Your task to perform on an android device: turn off translation in the chrome app Image 0: 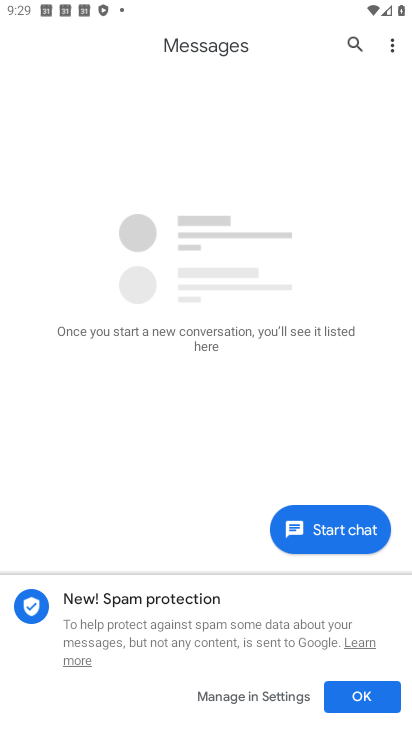
Step 0: click (133, 635)
Your task to perform on an android device: turn off translation in the chrome app Image 1: 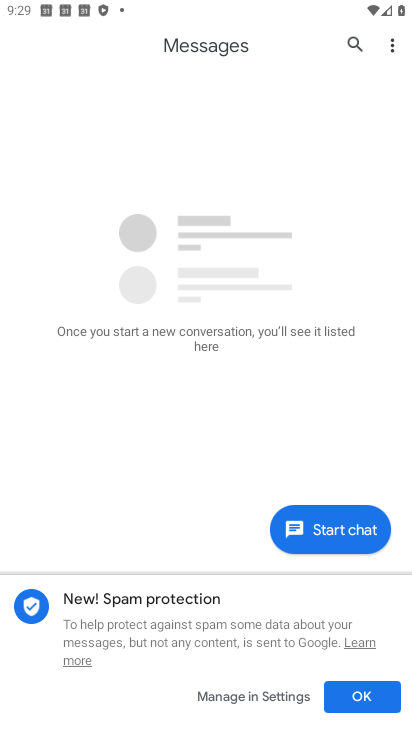
Step 1: press home button
Your task to perform on an android device: turn off translation in the chrome app Image 2: 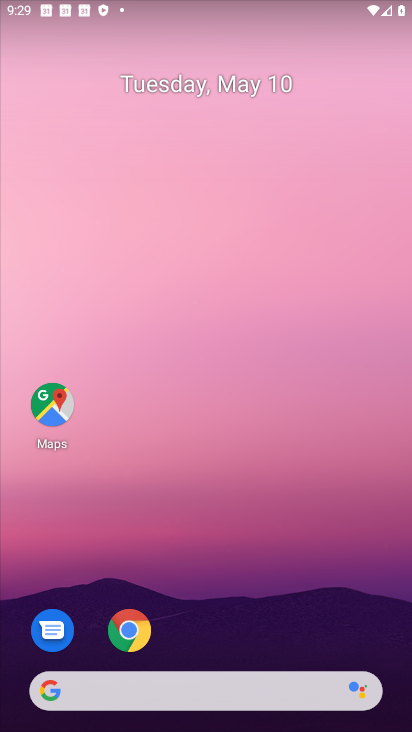
Step 2: click (135, 627)
Your task to perform on an android device: turn off translation in the chrome app Image 3: 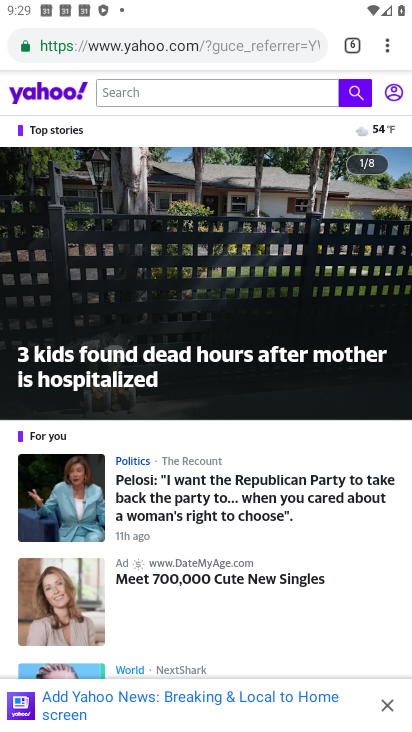
Step 3: click (392, 38)
Your task to perform on an android device: turn off translation in the chrome app Image 4: 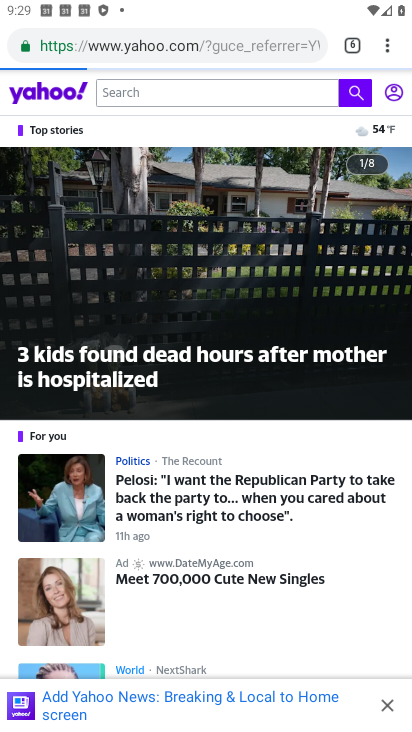
Step 4: click (383, 46)
Your task to perform on an android device: turn off translation in the chrome app Image 5: 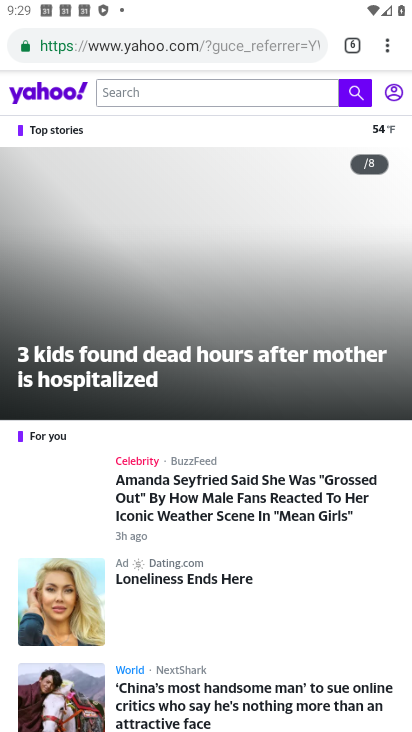
Step 5: click (383, 46)
Your task to perform on an android device: turn off translation in the chrome app Image 6: 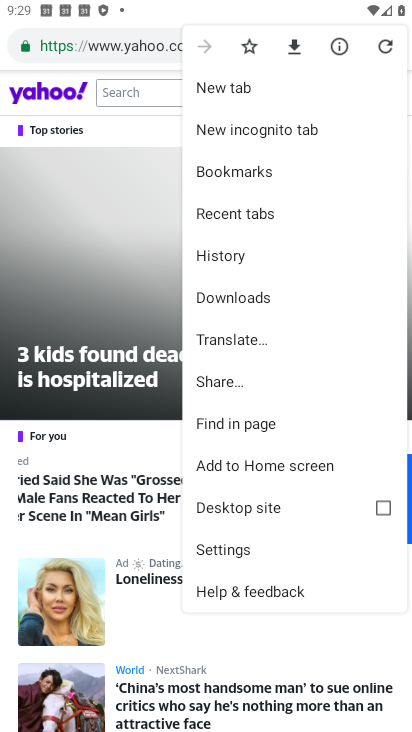
Step 6: click (262, 557)
Your task to perform on an android device: turn off translation in the chrome app Image 7: 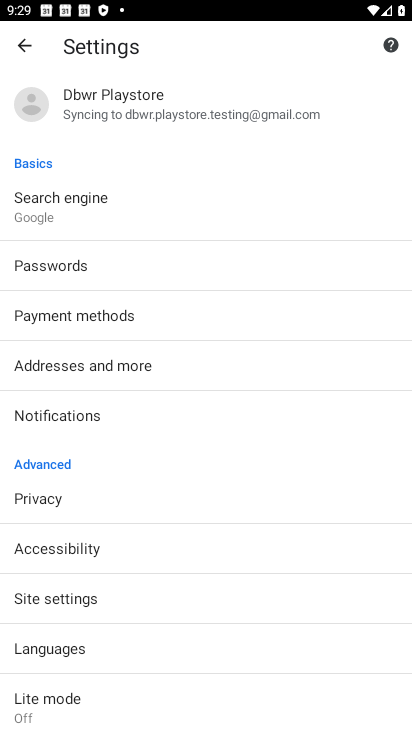
Step 7: click (36, 641)
Your task to perform on an android device: turn off translation in the chrome app Image 8: 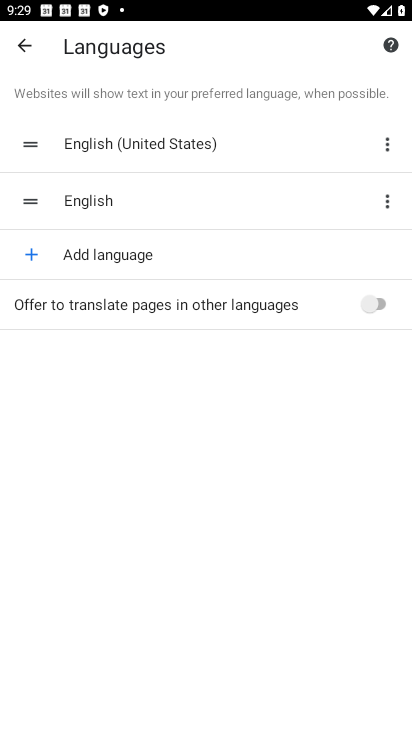
Step 8: task complete